Your task to perform on an android device: open app "Messages" (install if not already installed) Image 0: 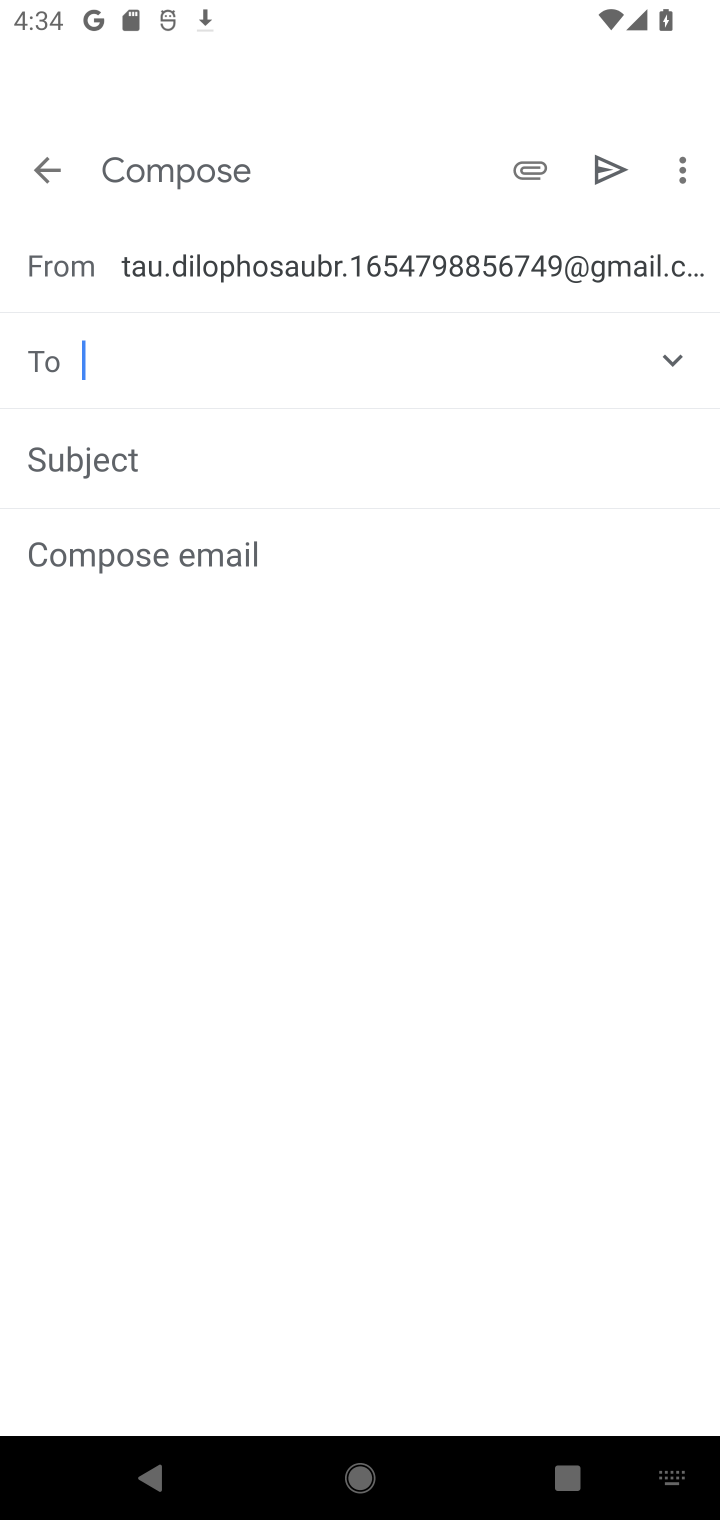
Step 0: press home button
Your task to perform on an android device: open app "Messages" (install if not already installed) Image 1: 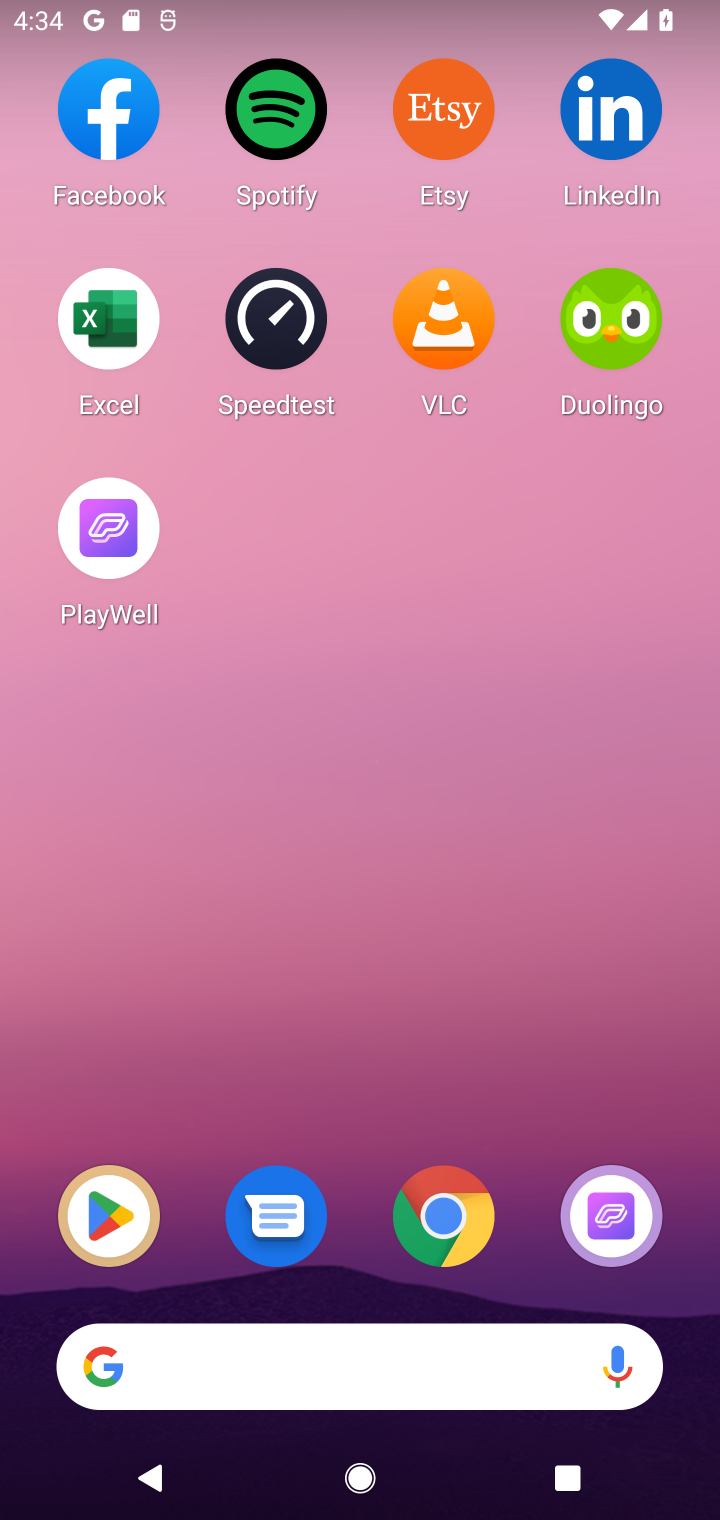
Step 1: click (296, 1215)
Your task to perform on an android device: open app "Messages" (install if not already installed) Image 2: 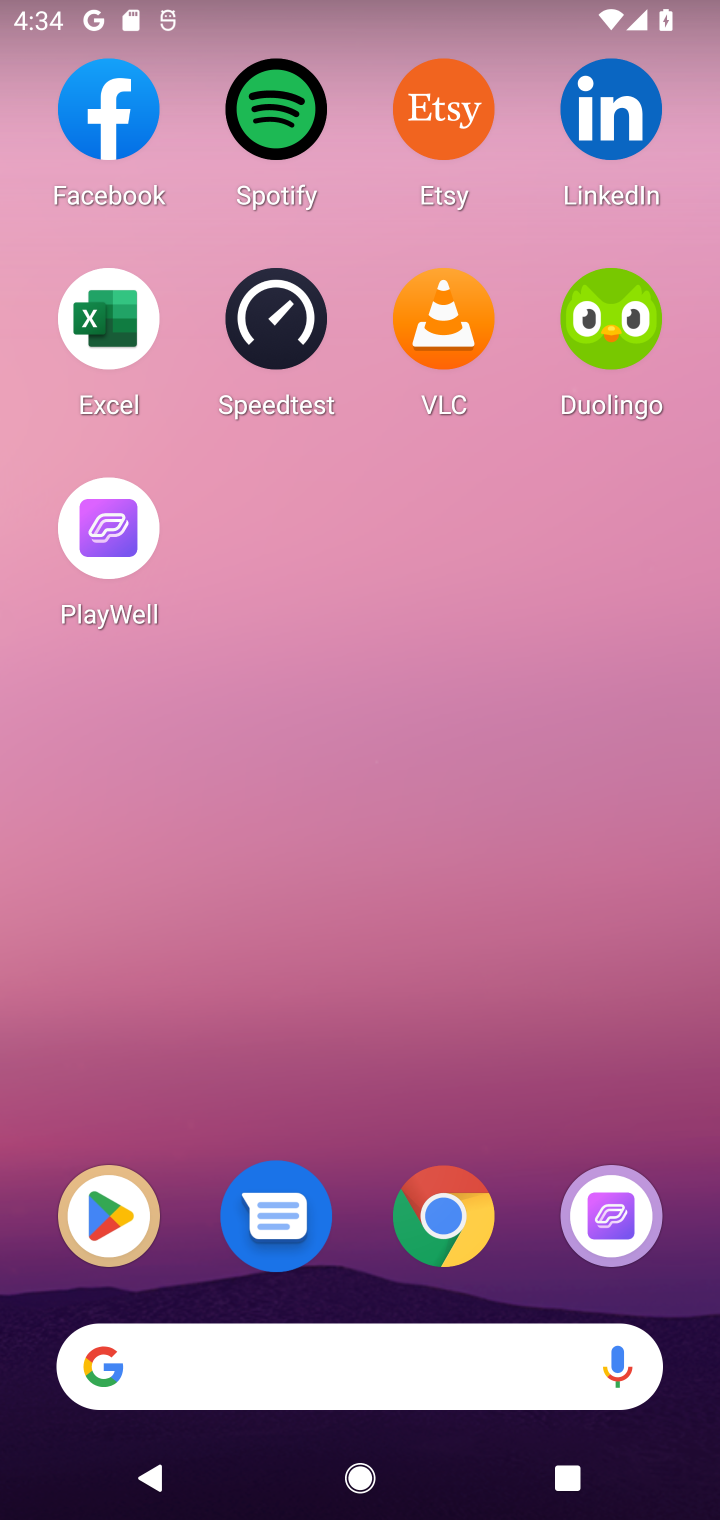
Step 2: task complete